Your task to perform on an android device: toggle sleep mode Image 0: 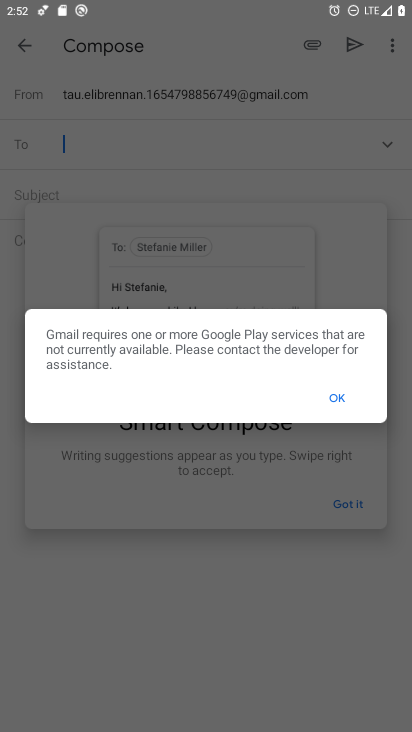
Step 0: press home button
Your task to perform on an android device: toggle sleep mode Image 1: 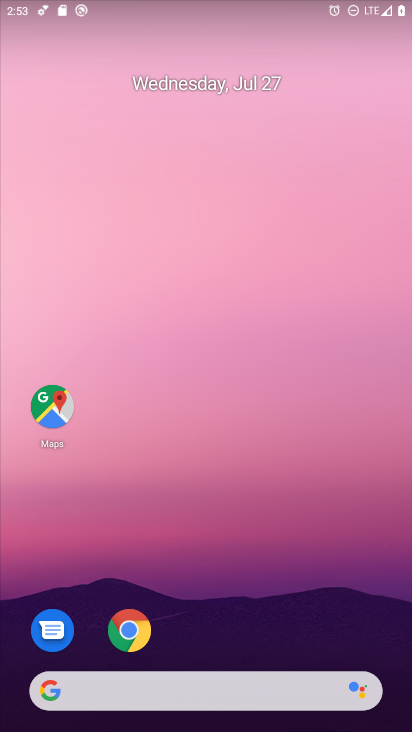
Step 1: drag from (382, 634) to (329, 30)
Your task to perform on an android device: toggle sleep mode Image 2: 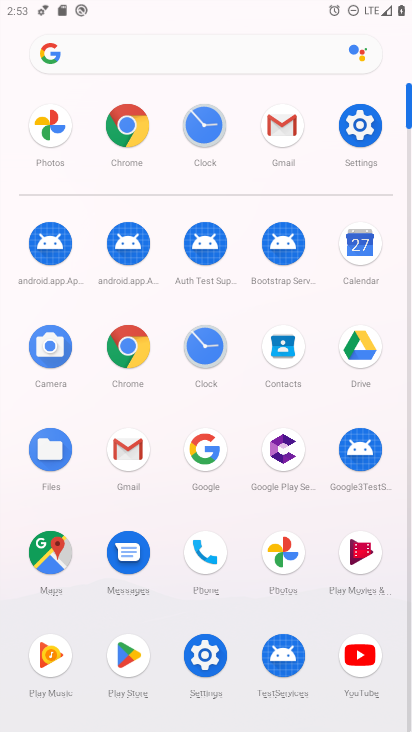
Step 2: click (205, 658)
Your task to perform on an android device: toggle sleep mode Image 3: 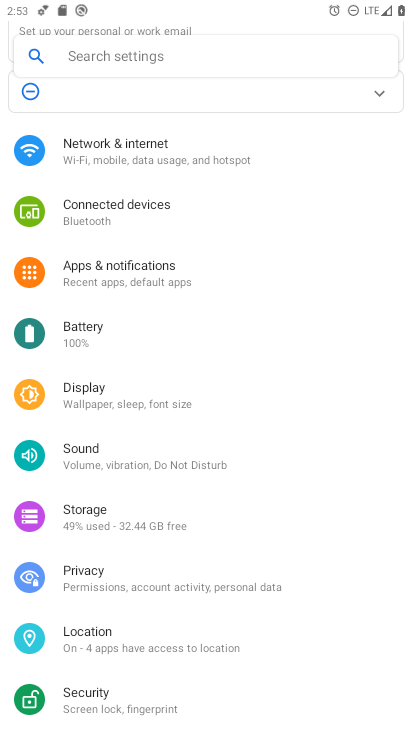
Step 3: click (97, 397)
Your task to perform on an android device: toggle sleep mode Image 4: 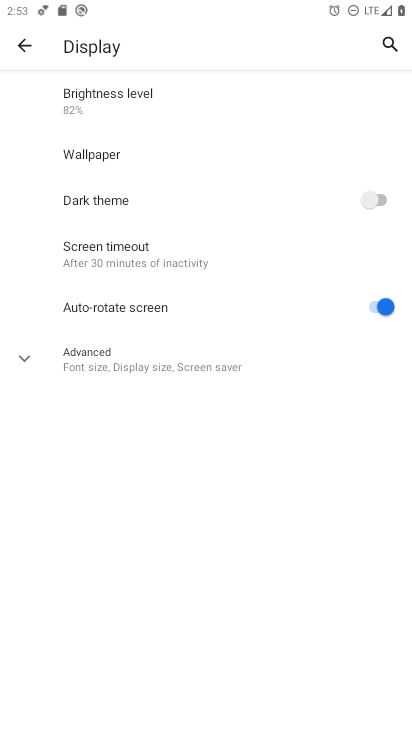
Step 4: click (18, 359)
Your task to perform on an android device: toggle sleep mode Image 5: 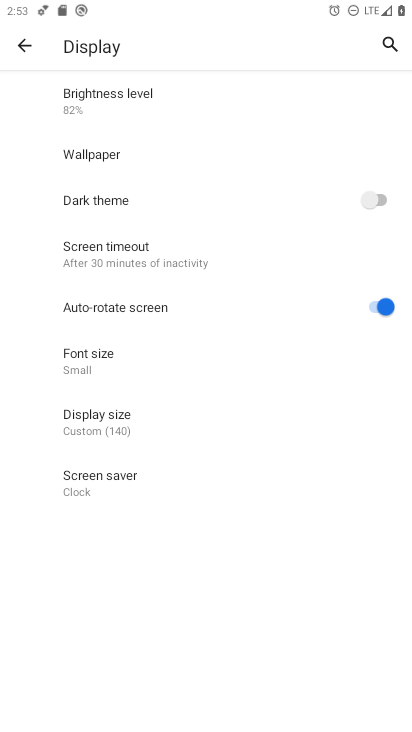
Step 5: task complete